Your task to perform on an android device: turn pop-ups on in chrome Image 0: 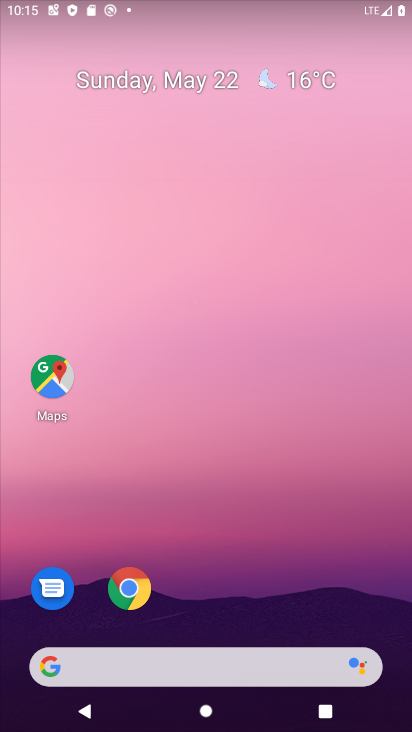
Step 0: click (138, 592)
Your task to perform on an android device: turn pop-ups on in chrome Image 1: 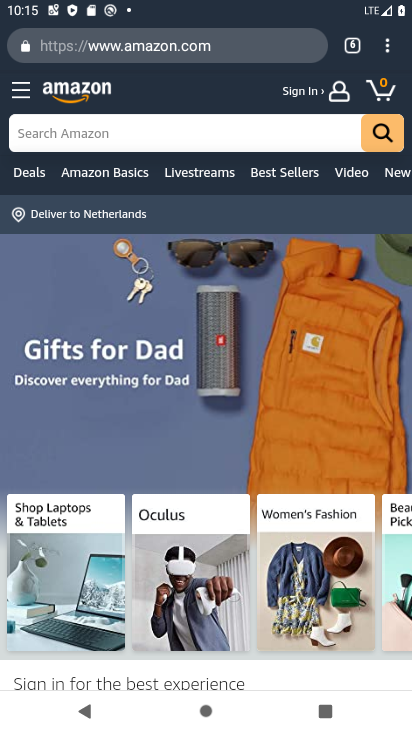
Step 1: click (379, 44)
Your task to perform on an android device: turn pop-ups on in chrome Image 2: 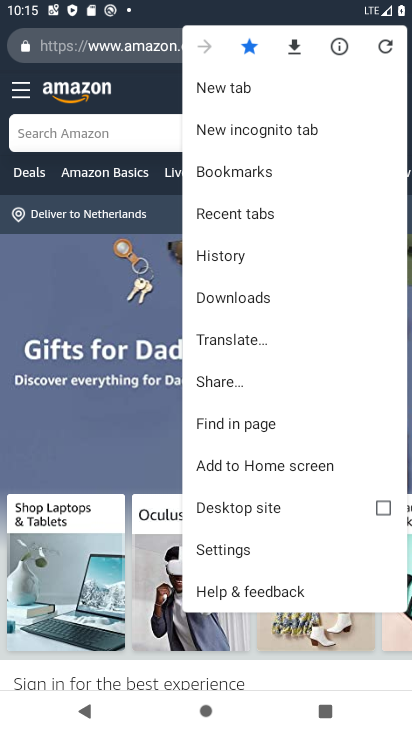
Step 2: click (245, 538)
Your task to perform on an android device: turn pop-ups on in chrome Image 3: 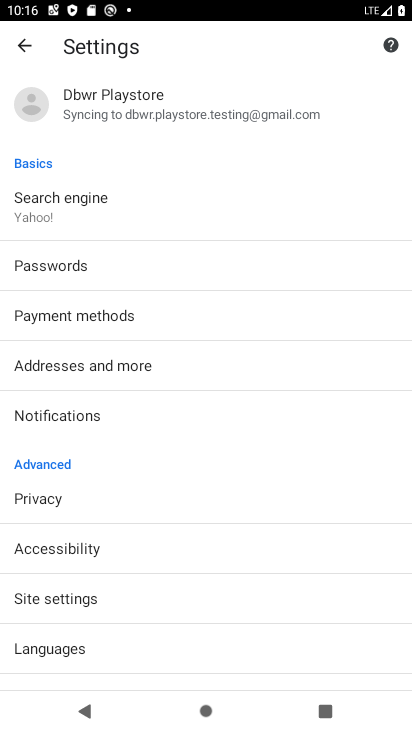
Step 3: drag from (230, 599) to (230, 356)
Your task to perform on an android device: turn pop-ups on in chrome Image 4: 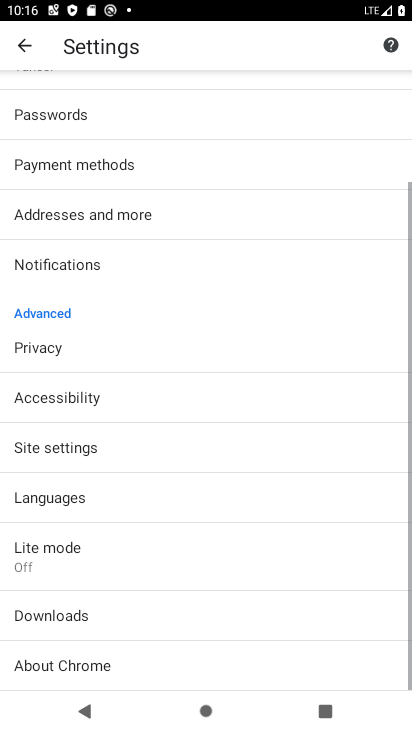
Step 4: click (108, 470)
Your task to perform on an android device: turn pop-ups on in chrome Image 5: 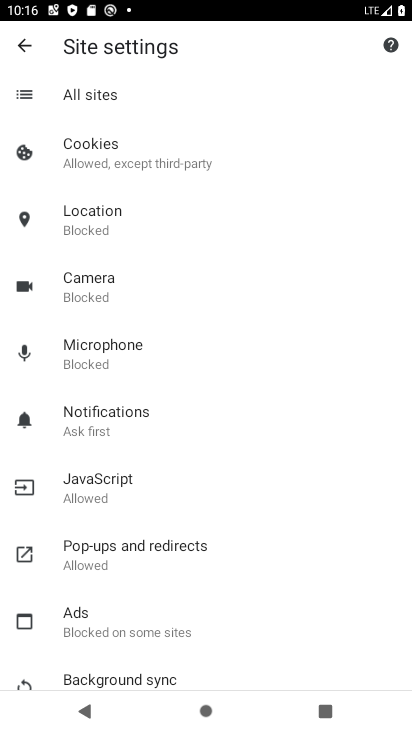
Step 5: click (132, 543)
Your task to perform on an android device: turn pop-ups on in chrome Image 6: 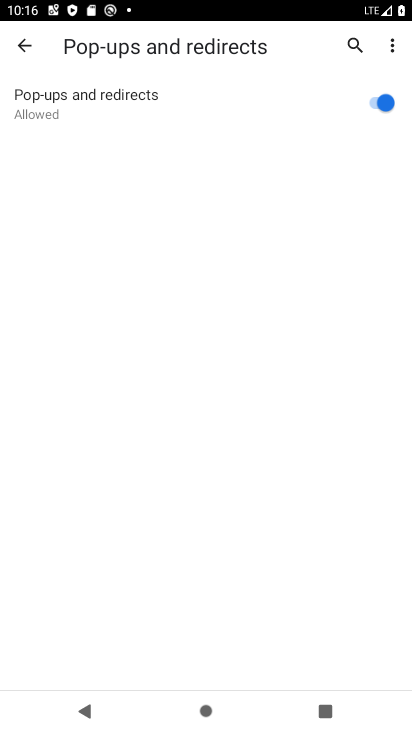
Step 6: task complete